Your task to perform on an android device: toggle improve location accuracy Image 0: 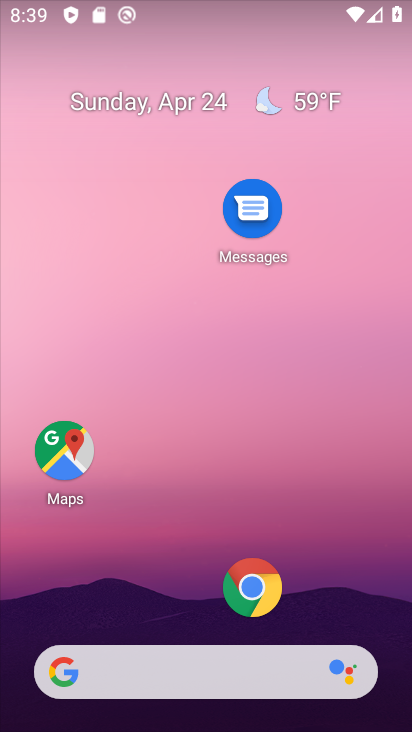
Step 0: drag from (152, 595) to (53, 27)
Your task to perform on an android device: toggle improve location accuracy Image 1: 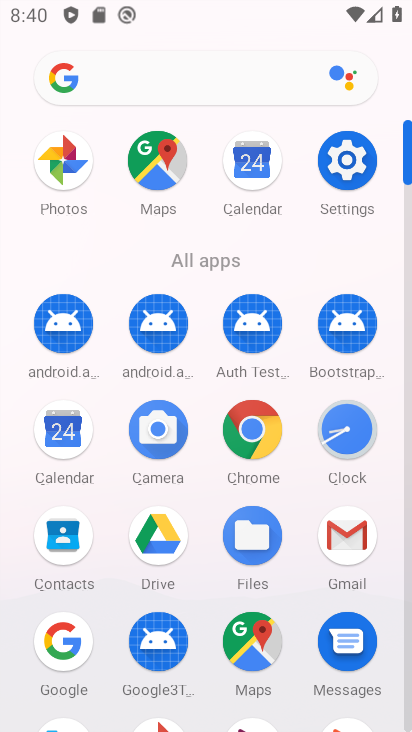
Step 1: click (363, 190)
Your task to perform on an android device: toggle improve location accuracy Image 2: 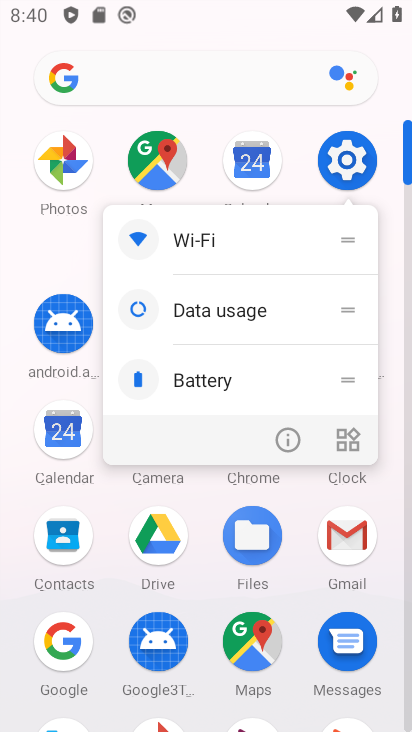
Step 2: click (358, 164)
Your task to perform on an android device: toggle improve location accuracy Image 3: 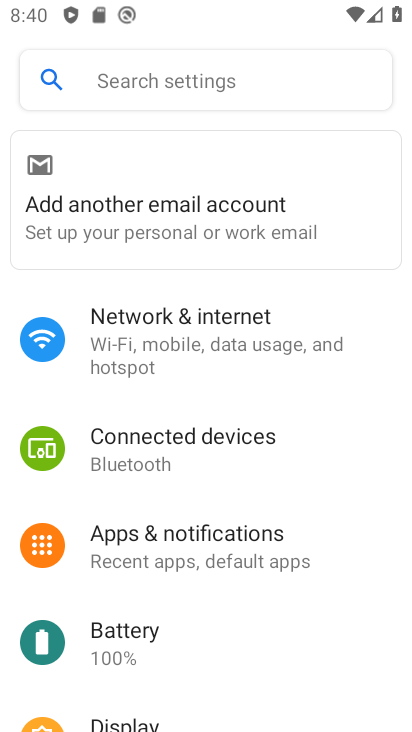
Step 3: drag from (171, 585) to (221, 198)
Your task to perform on an android device: toggle improve location accuracy Image 4: 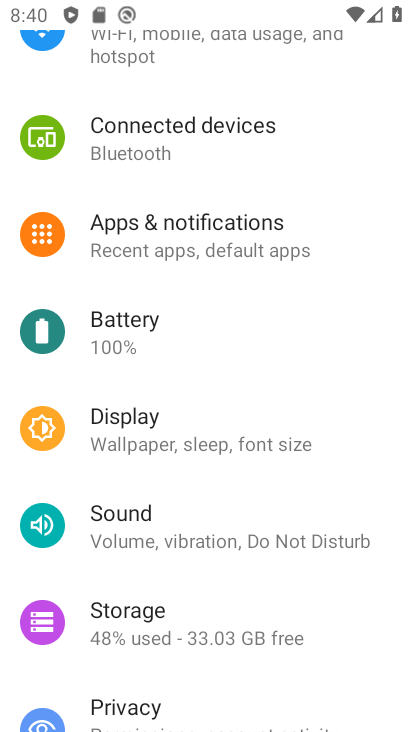
Step 4: drag from (187, 606) to (233, 167)
Your task to perform on an android device: toggle improve location accuracy Image 5: 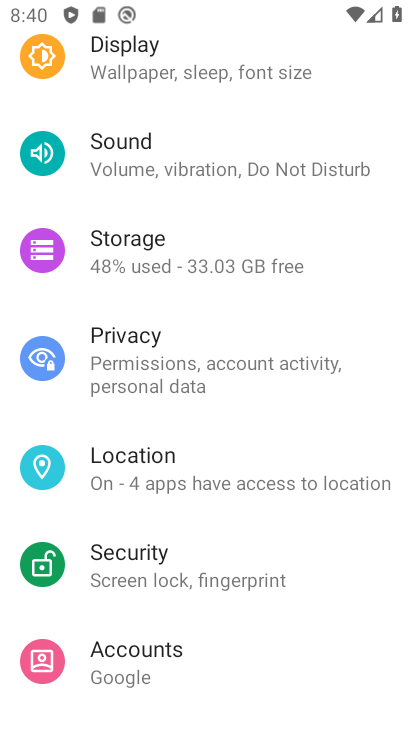
Step 5: click (154, 475)
Your task to perform on an android device: toggle improve location accuracy Image 6: 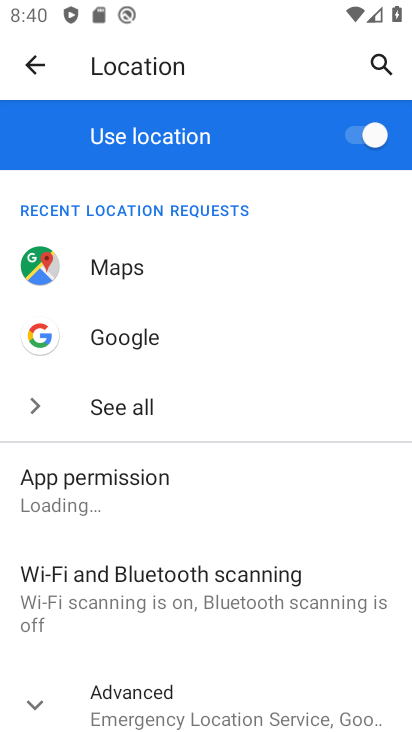
Step 6: drag from (132, 587) to (199, 199)
Your task to perform on an android device: toggle improve location accuracy Image 7: 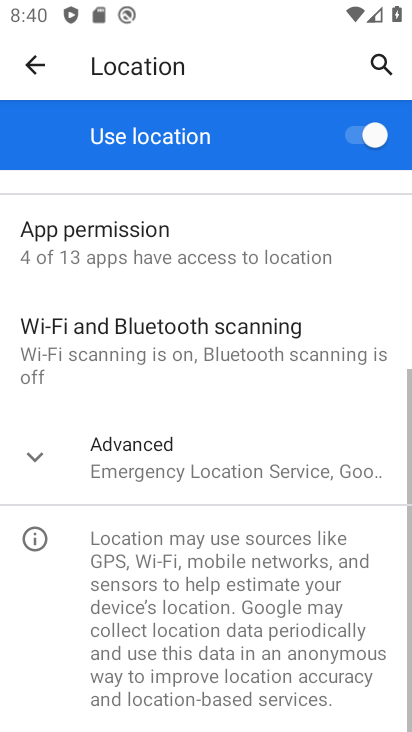
Step 7: click (96, 455)
Your task to perform on an android device: toggle improve location accuracy Image 8: 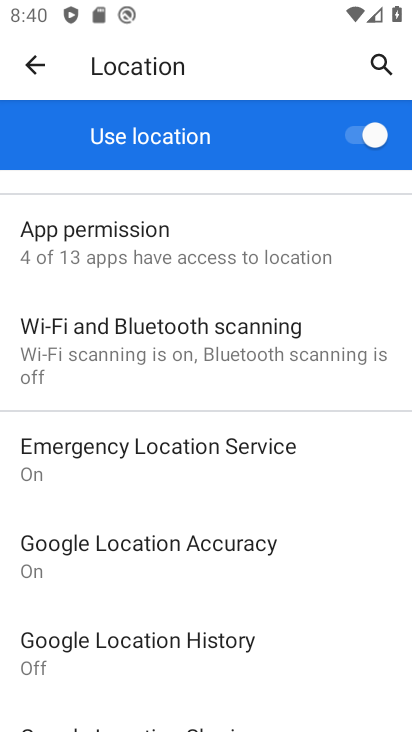
Step 8: click (157, 559)
Your task to perform on an android device: toggle improve location accuracy Image 9: 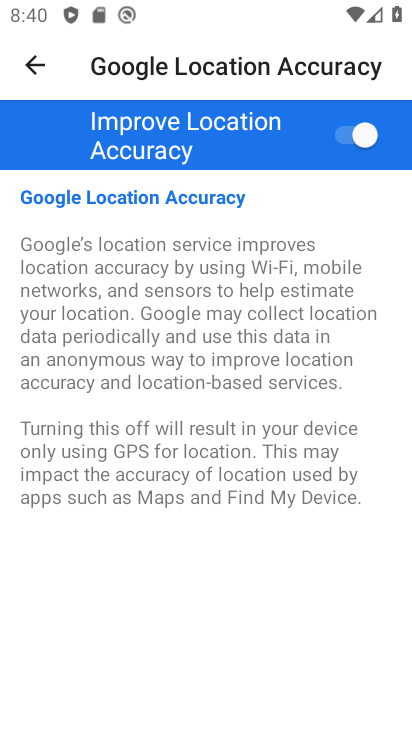
Step 9: click (329, 140)
Your task to perform on an android device: toggle improve location accuracy Image 10: 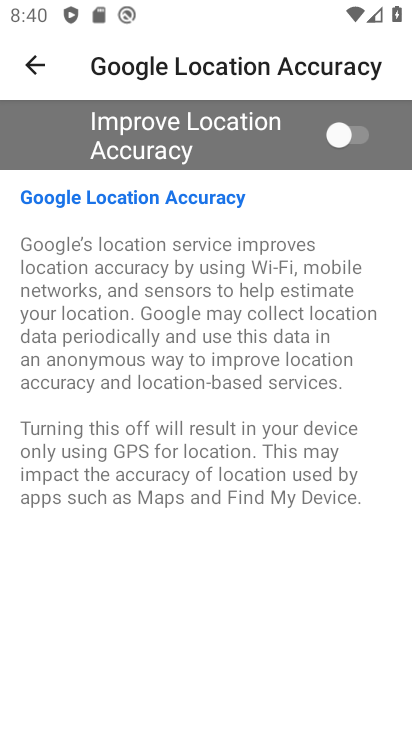
Step 10: task complete